Your task to perform on an android device: uninstall "Upside-Cash back on gas & food" Image 0: 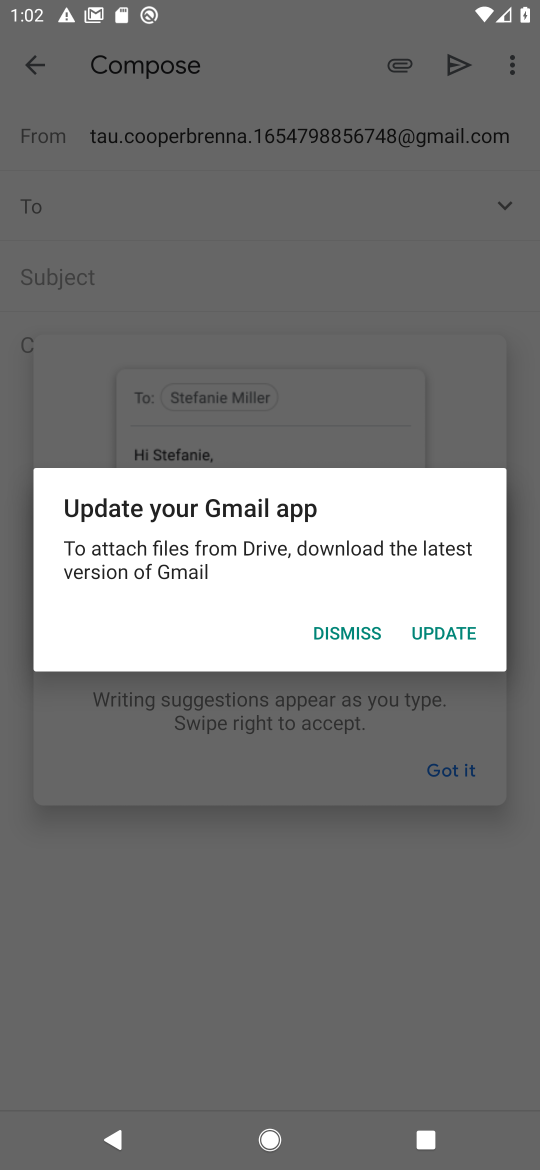
Step 0: press home button
Your task to perform on an android device: uninstall "Upside-Cash back on gas & food" Image 1: 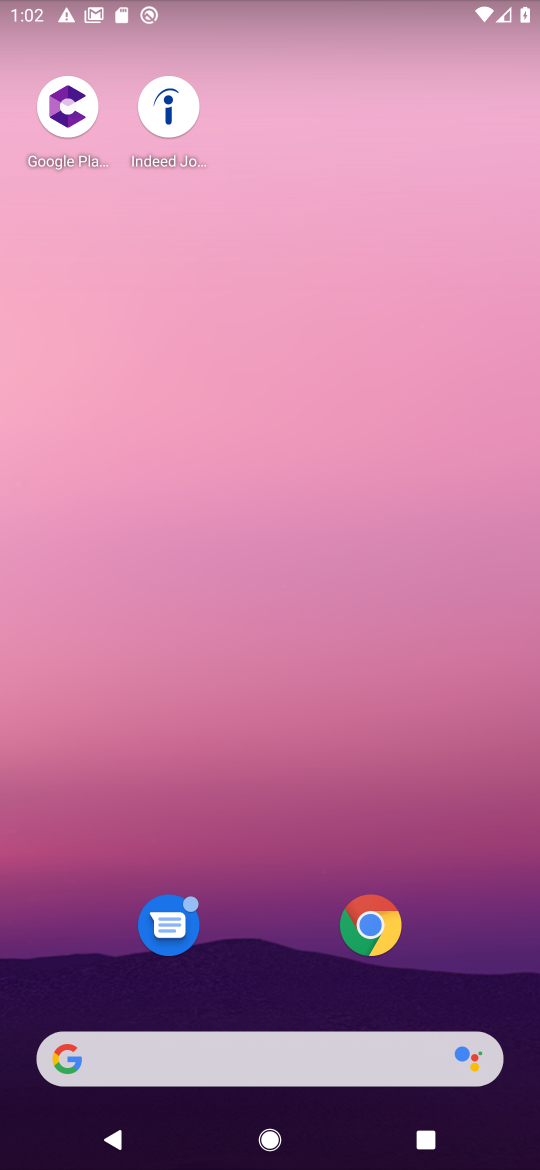
Step 1: drag from (249, 983) to (495, 7)
Your task to perform on an android device: uninstall "Upside-Cash back on gas & food" Image 2: 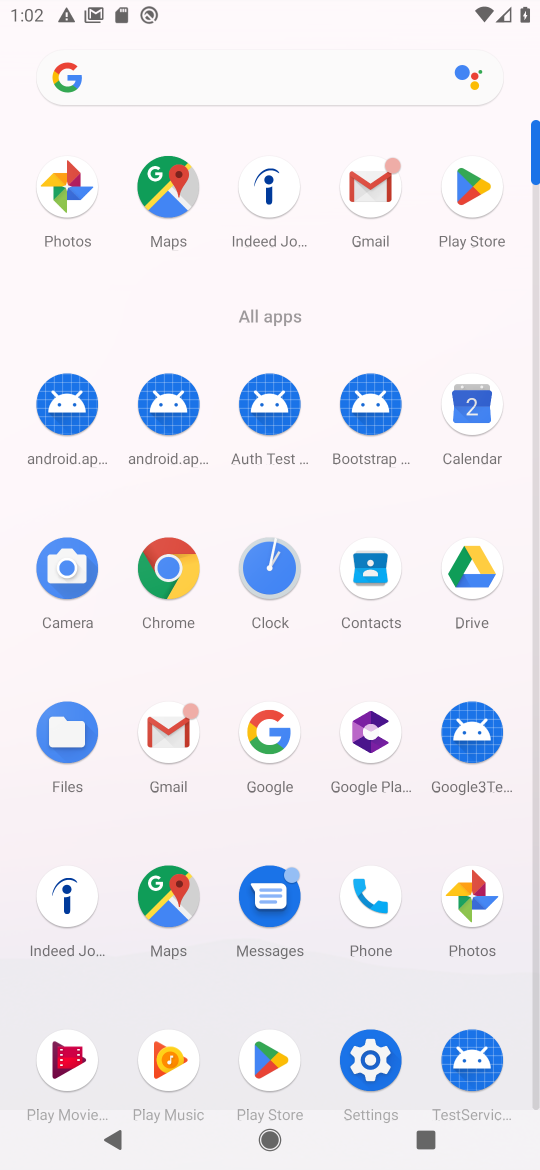
Step 2: click (476, 208)
Your task to perform on an android device: uninstall "Upside-Cash back on gas & food" Image 3: 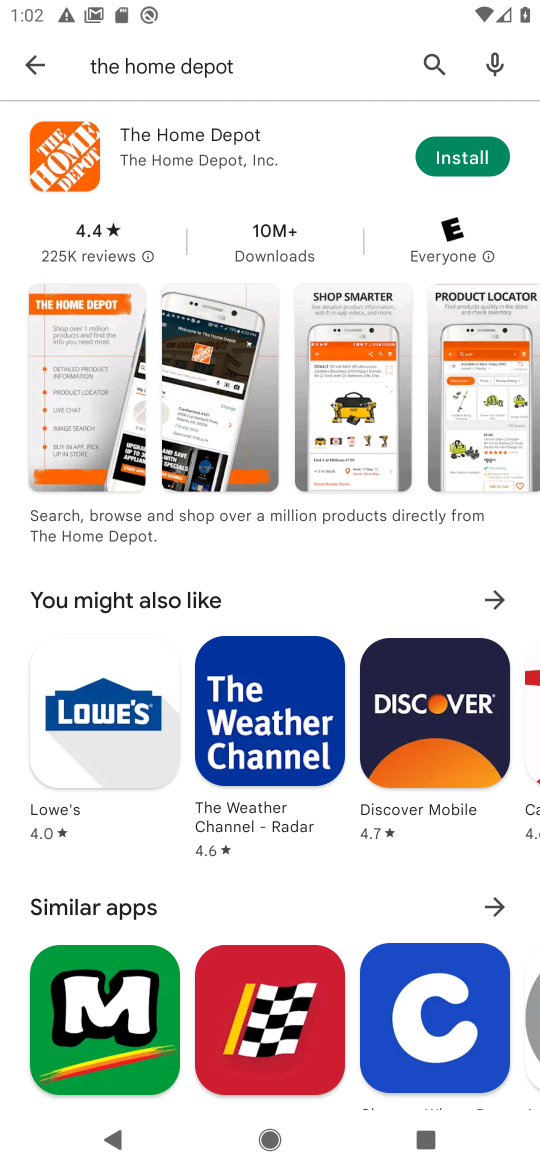
Step 3: click (436, 64)
Your task to perform on an android device: uninstall "Upside-Cash back on gas & food" Image 4: 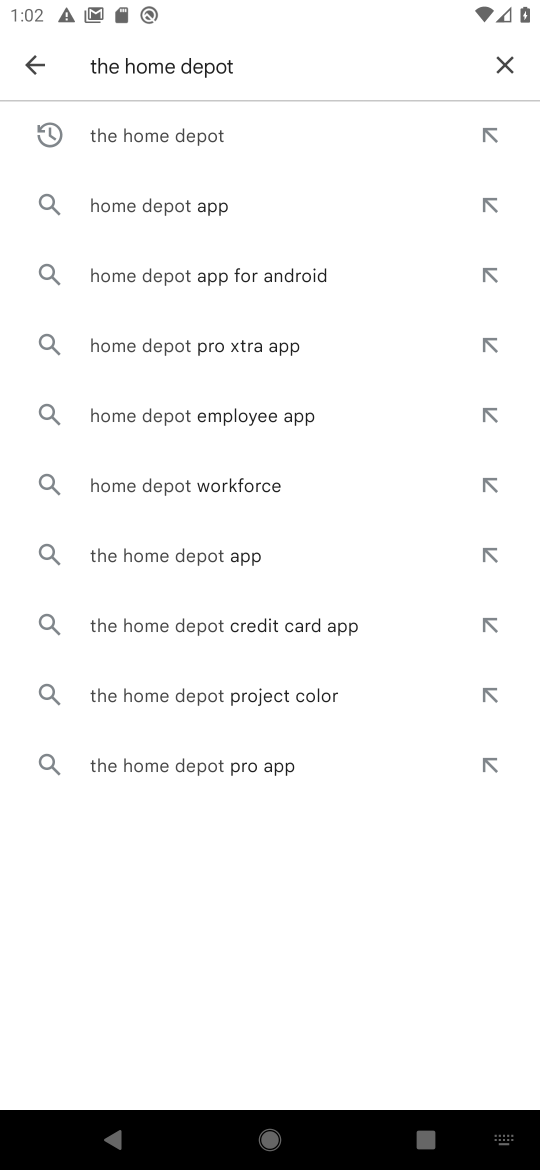
Step 4: click (515, 51)
Your task to perform on an android device: uninstall "Upside-Cash back on gas & food" Image 5: 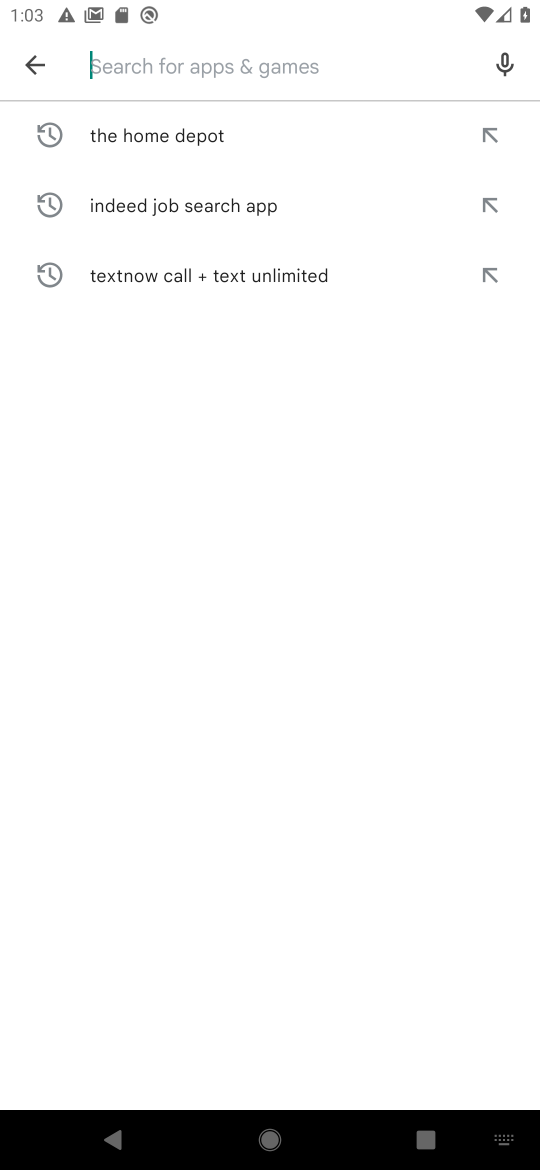
Step 5: type "upside-cash back on gas & food"
Your task to perform on an android device: uninstall "Upside-Cash back on gas & food" Image 6: 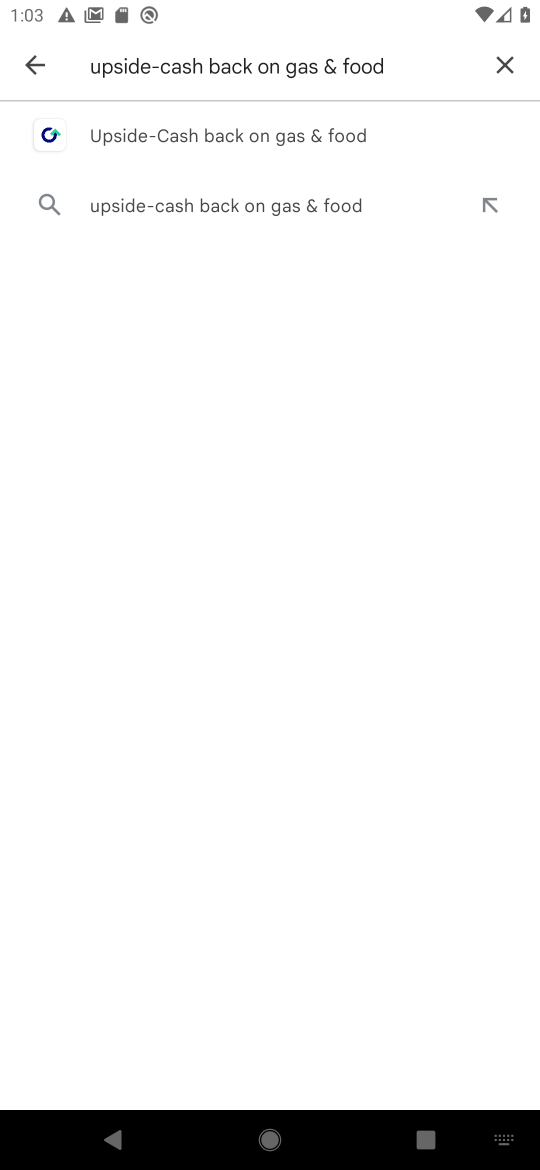
Step 6: click (211, 139)
Your task to perform on an android device: uninstall "Upside-Cash back on gas & food" Image 7: 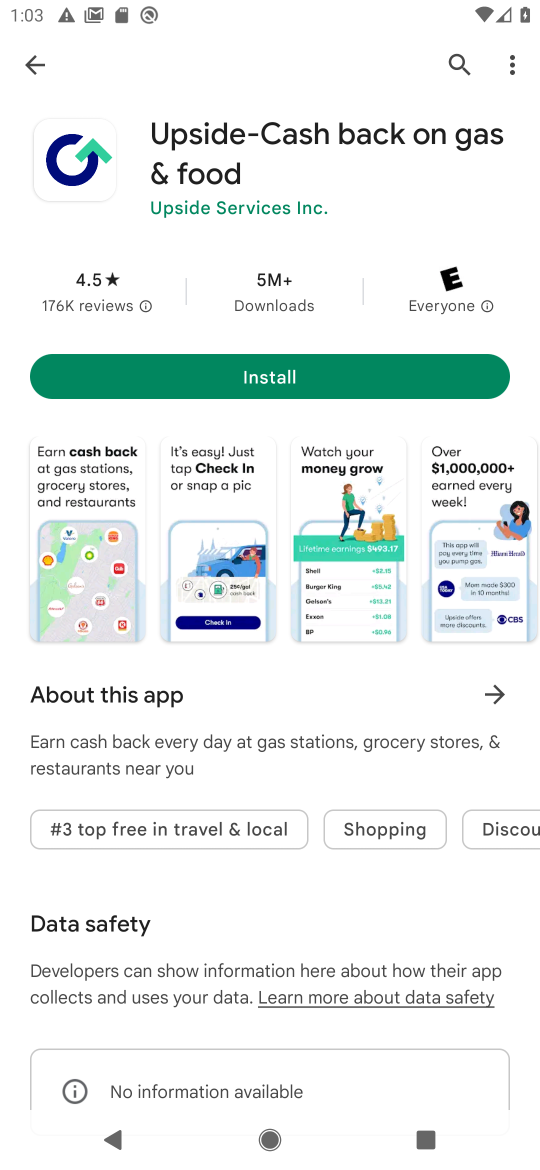
Step 7: task complete